Your task to perform on an android device: Search for seafood restaurants on Google Maps Image 0: 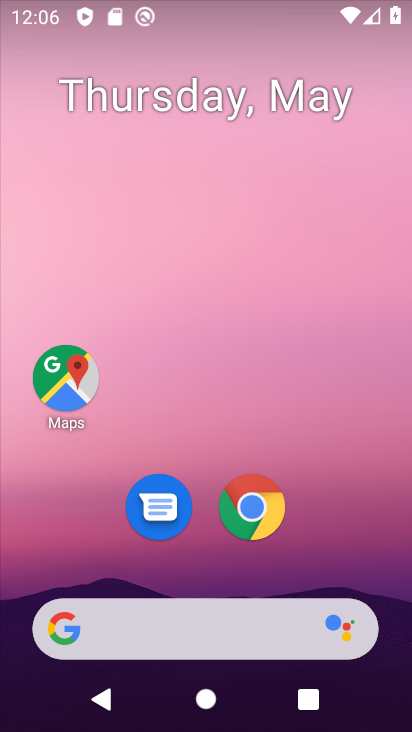
Step 0: click (75, 380)
Your task to perform on an android device: Search for seafood restaurants on Google Maps Image 1: 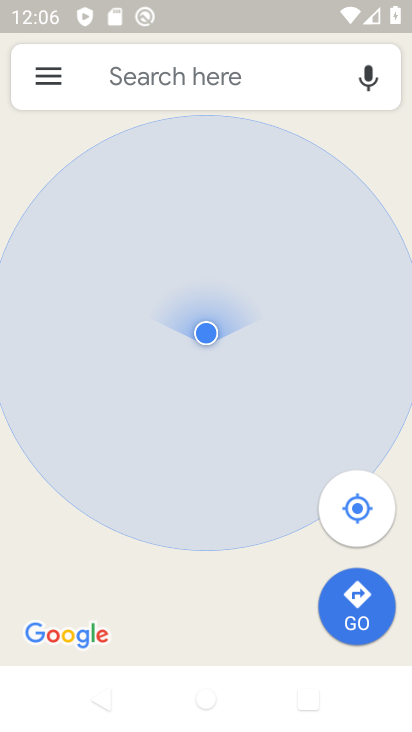
Step 1: click (113, 76)
Your task to perform on an android device: Search for seafood restaurants on Google Maps Image 2: 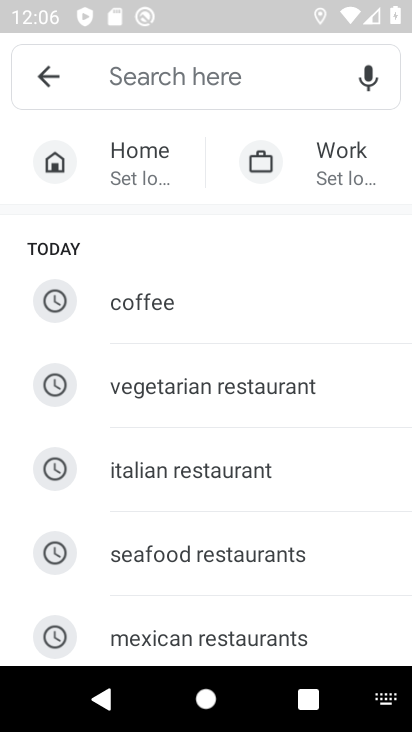
Step 2: click (170, 560)
Your task to perform on an android device: Search for seafood restaurants on Google Maps Image 3: 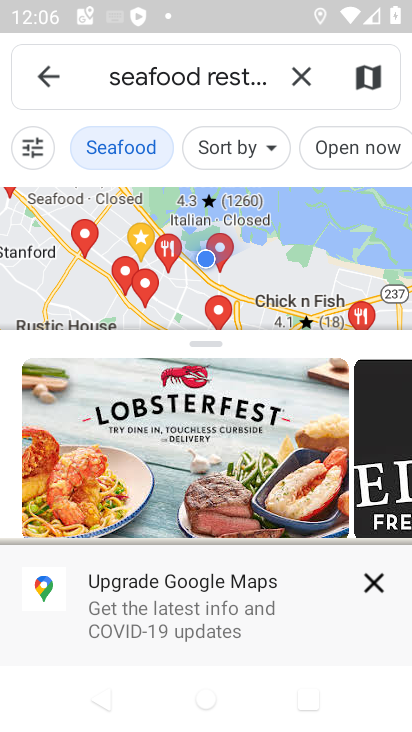
Step 3: task complete